Your task to perform on an android device: Open display settings Image 0: 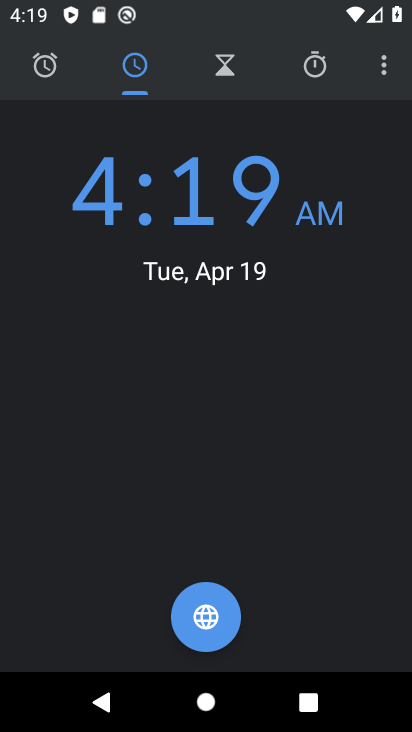
Step 0: press home button
Your task to perform on an android device: Open display settings Image 1: 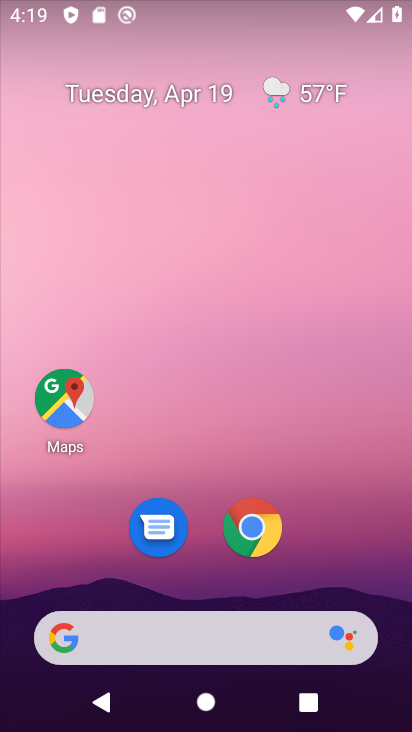
Step 1: drag from (385, 585) to (319, 17)
Your task to perform on an android device: Open display settings Image 2: 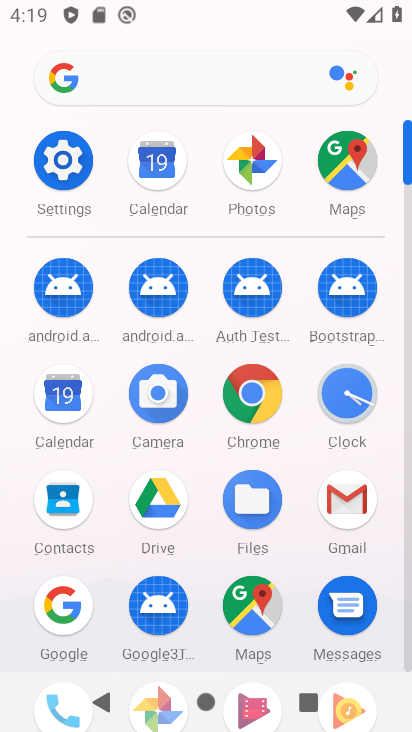
Step 2: click (407, 644)
Your task to perform on an android device: Open display settings Image 3: 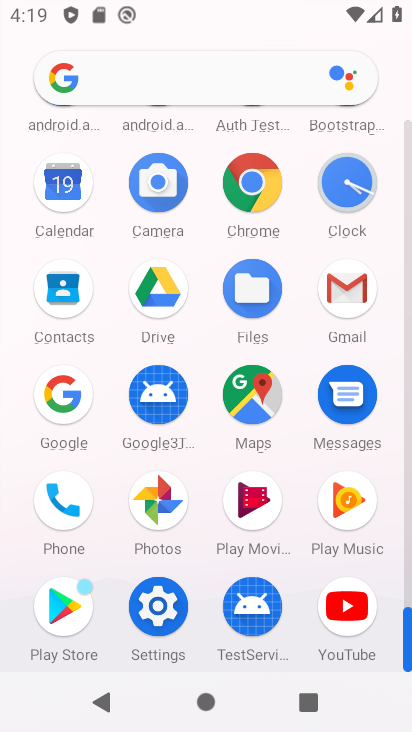
Step 3: click (160, 607)
Your task to perform on an android device: Open display settings Image 4: 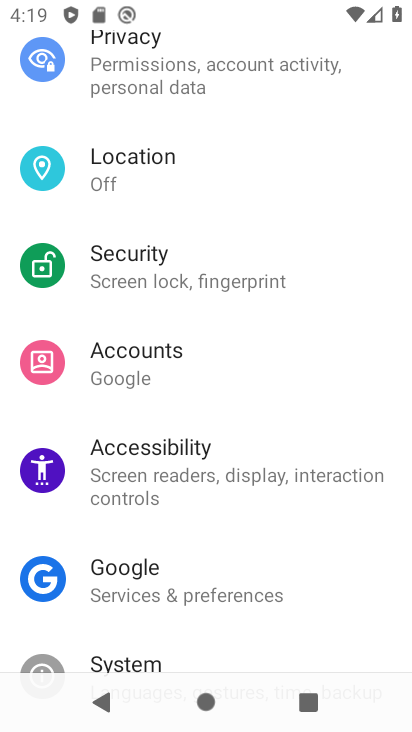
Step 4: drag from (349, 111) to (304, 388)
Your task to perform on an android device: Open display settings Image 5: 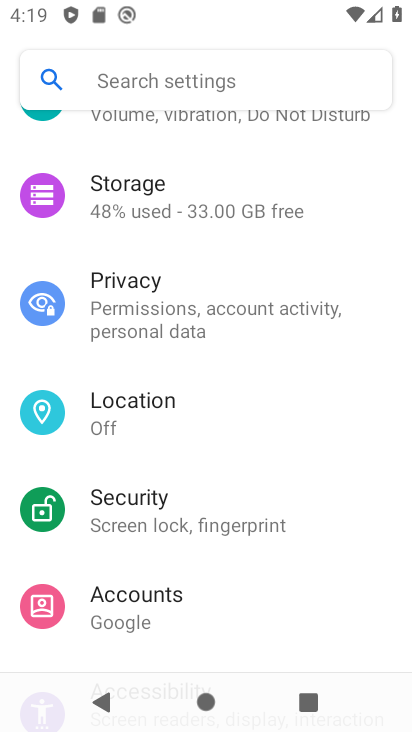
Step 5: drag from (367, 172) to (320, 428)
Your task to perform on an android device: Open display settings Image 6: 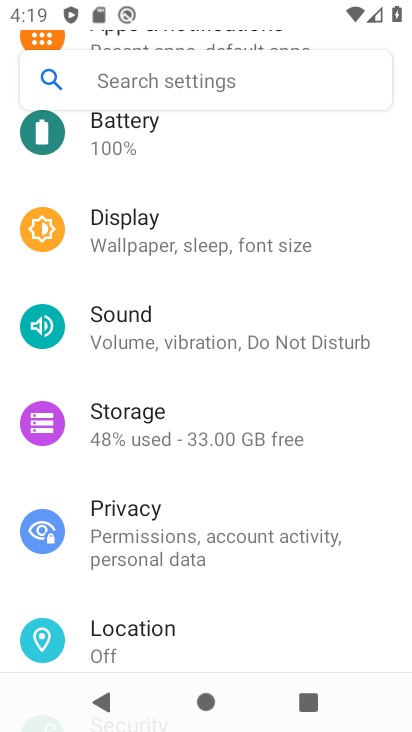
Step 6: drag from (346, 231) to (357, 439)
Your task to perform on an android device: Open display settings Image 7: 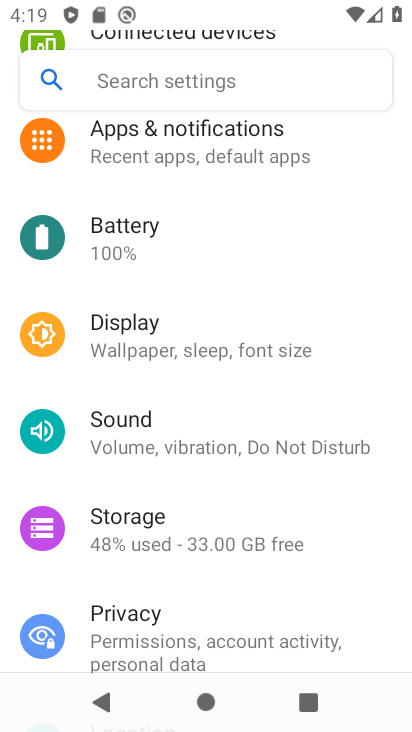
Step 7: click (134, 328)
Your task to perform on an android device: Open display settings Image 8: 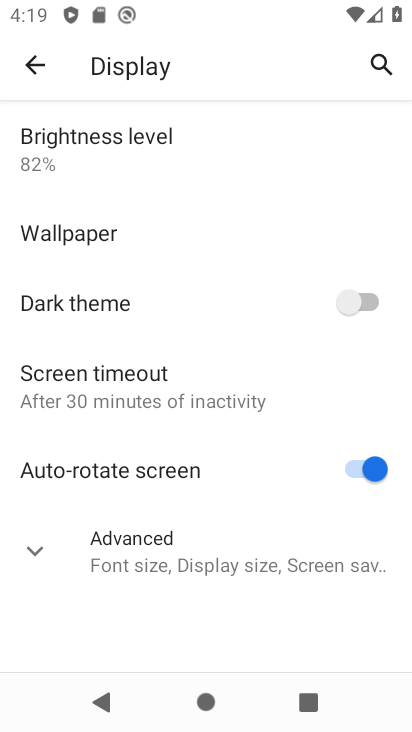
Step 8: click (41, 544)
Your task to perform on an android device: Open display settings Image 9: 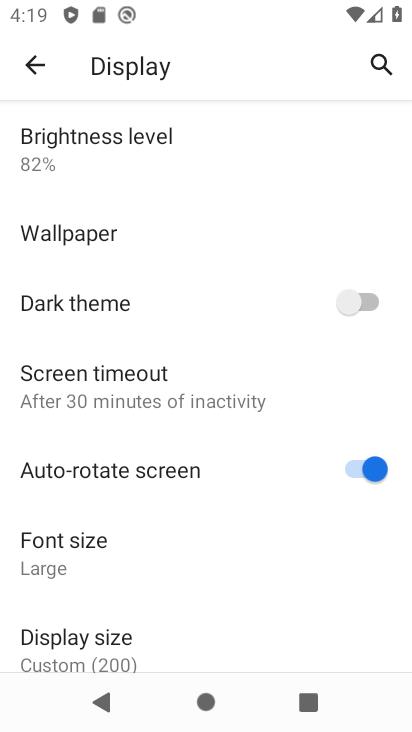
Step 9: task complete